Your task to perform on an android device: open app "Gmail" (install if not already installed) and enter user name: "undecidable@inbox.com" and password: "discouraging" Image 0: 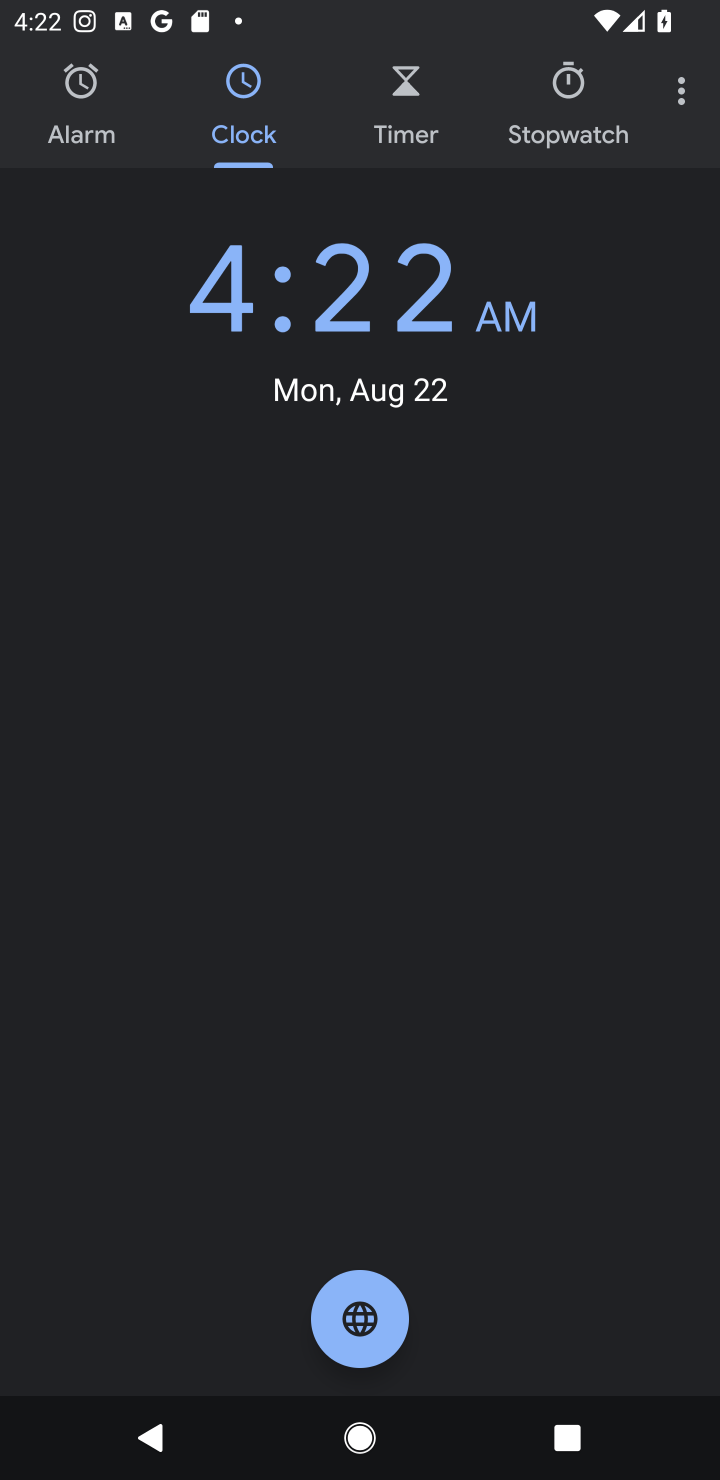
Step 0: press home button
Your task to perform on an android device: open app "Gmail" (install if not already installed) and enter user name: "undecidable@inbox.com" and password: "discouraging" Image 1: 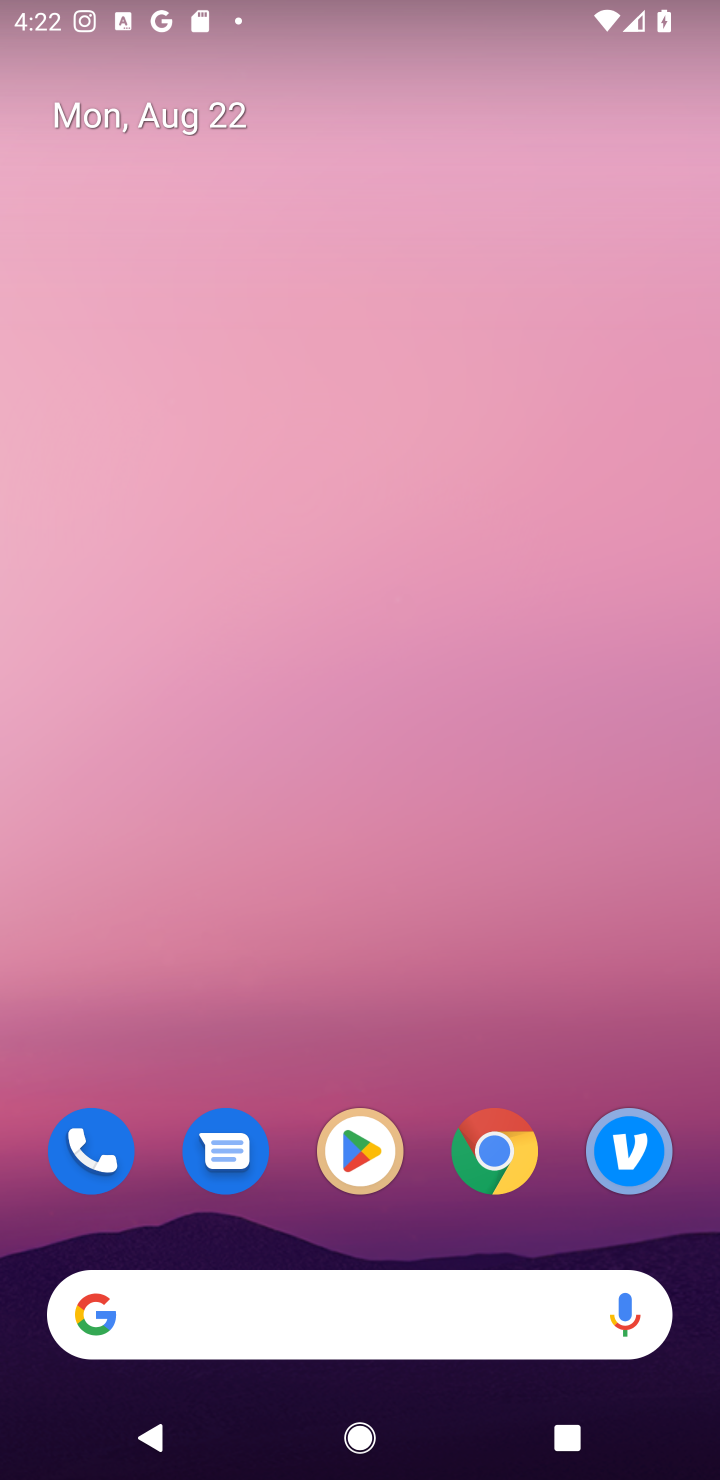
Step 1: click (340, 1155)
Your task to perform on an android device: open app "Gmail" (install if not already installed) and enter user name: "undecidable@inbox.com" and password: "discouraging" Image 2: 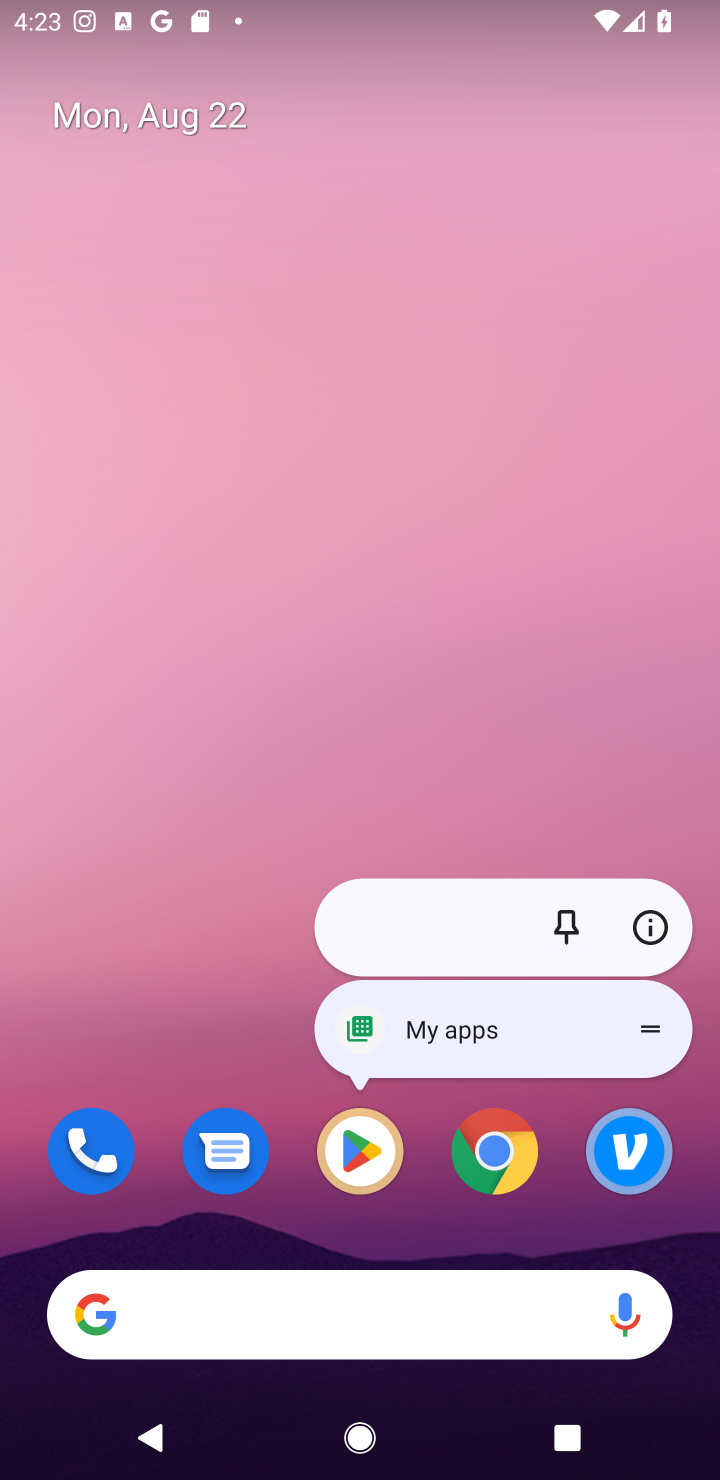
Step 2: click (340, 1157)
Your task to perform on an android device: open app "Gmail" (install if not already installed) and enter user name: "undecidable@inbox.com" and password: "discouraging" Image 3: 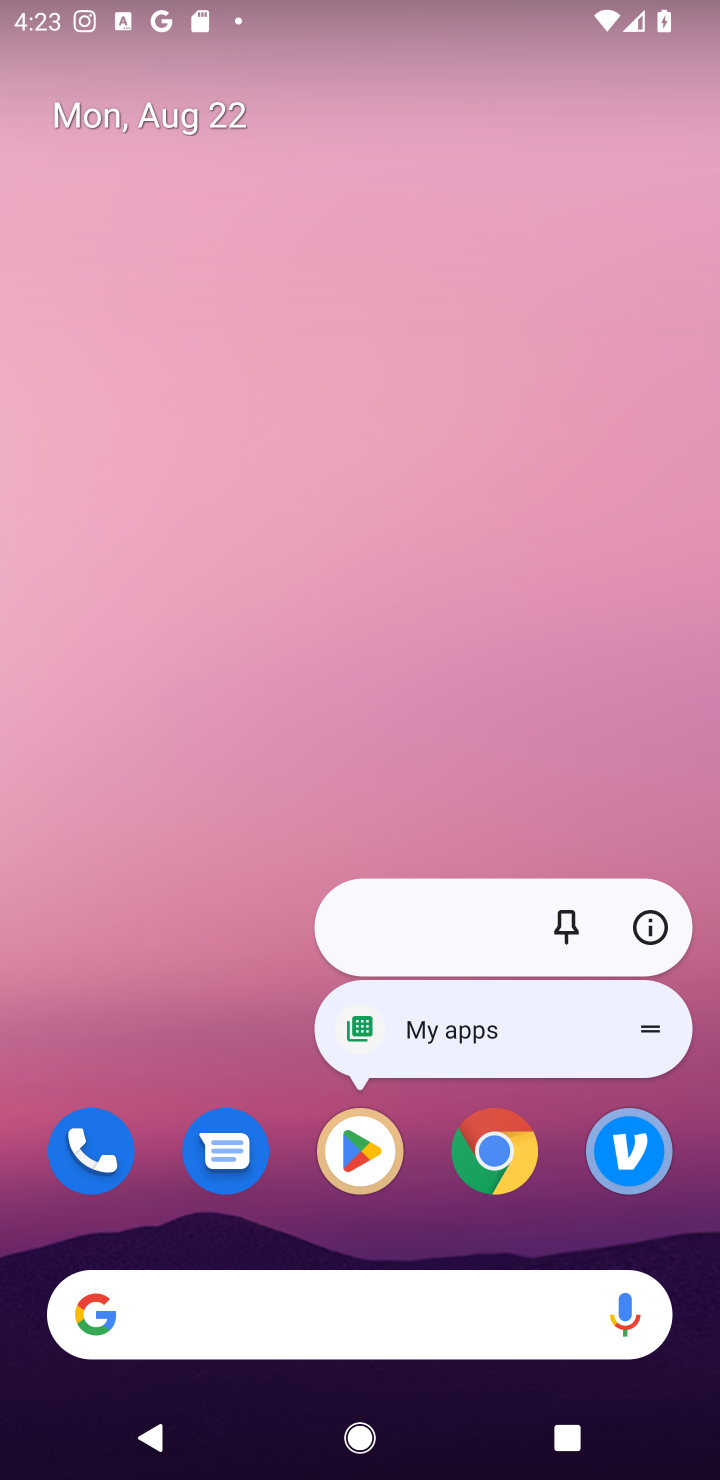
Step 3: click (363, 1141)
Your task to perform on an android device: open app "Gmail" (install if not already installed) and enter user name: "undecidable@inbox.com" and password: "discouraging" Image 4: 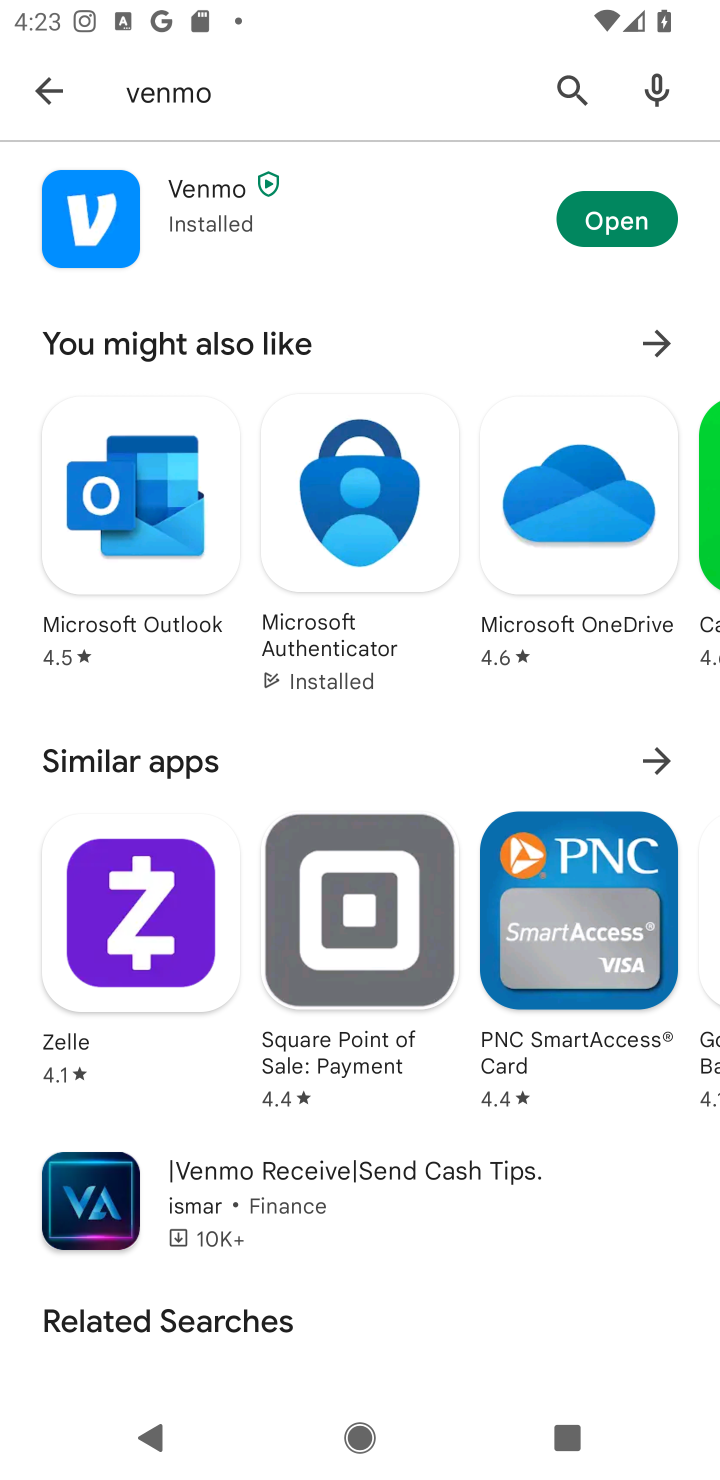
Step 4: click (564, 82)
Your task to perform on an android device: open app "Gmail" (install if not already installed) and enter user name: "undecidable@inbox.com" and password: "discouraging" Image 5: 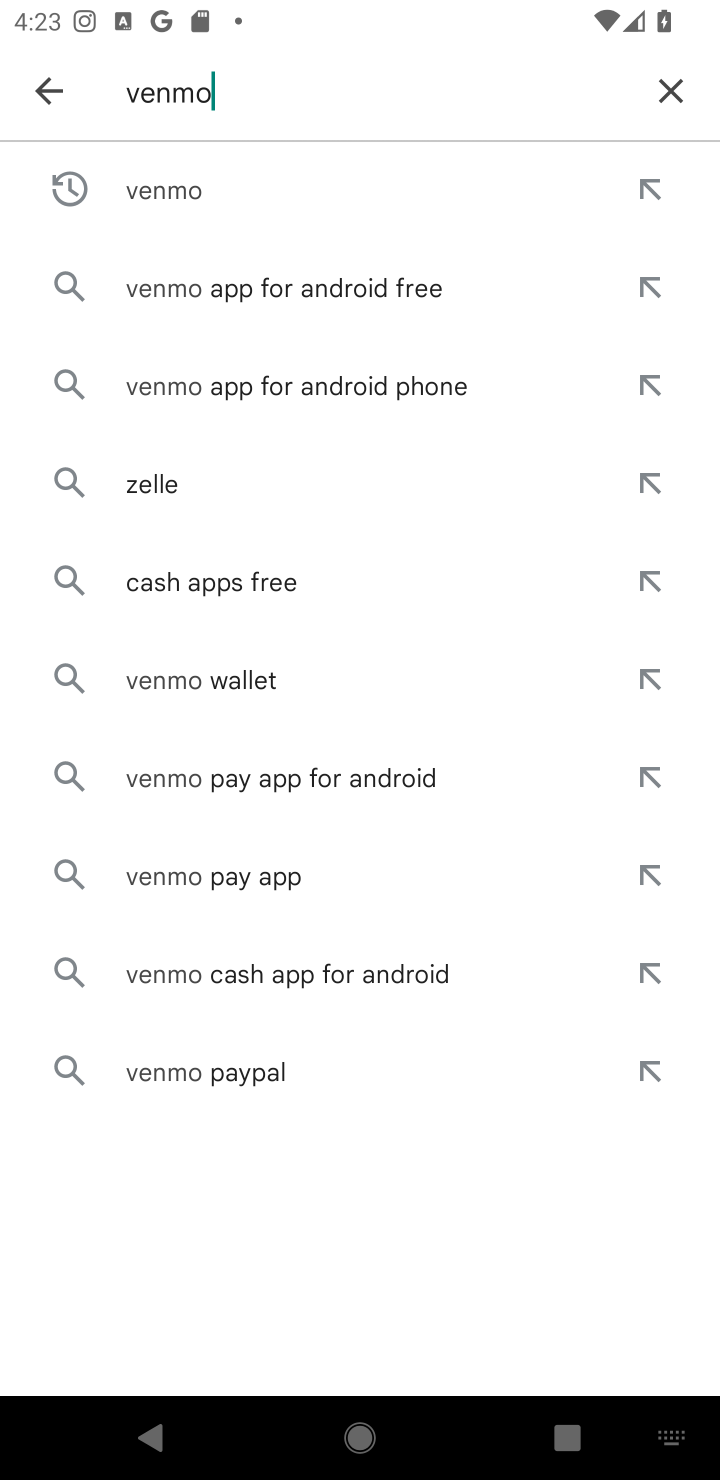
Step 5: click (678, 78)
Your task to perform on an android device: open app "Gmail" (install if not already installed) and enter user name: "undecidable@inbox.com" and password: "discouraging" Image 6: 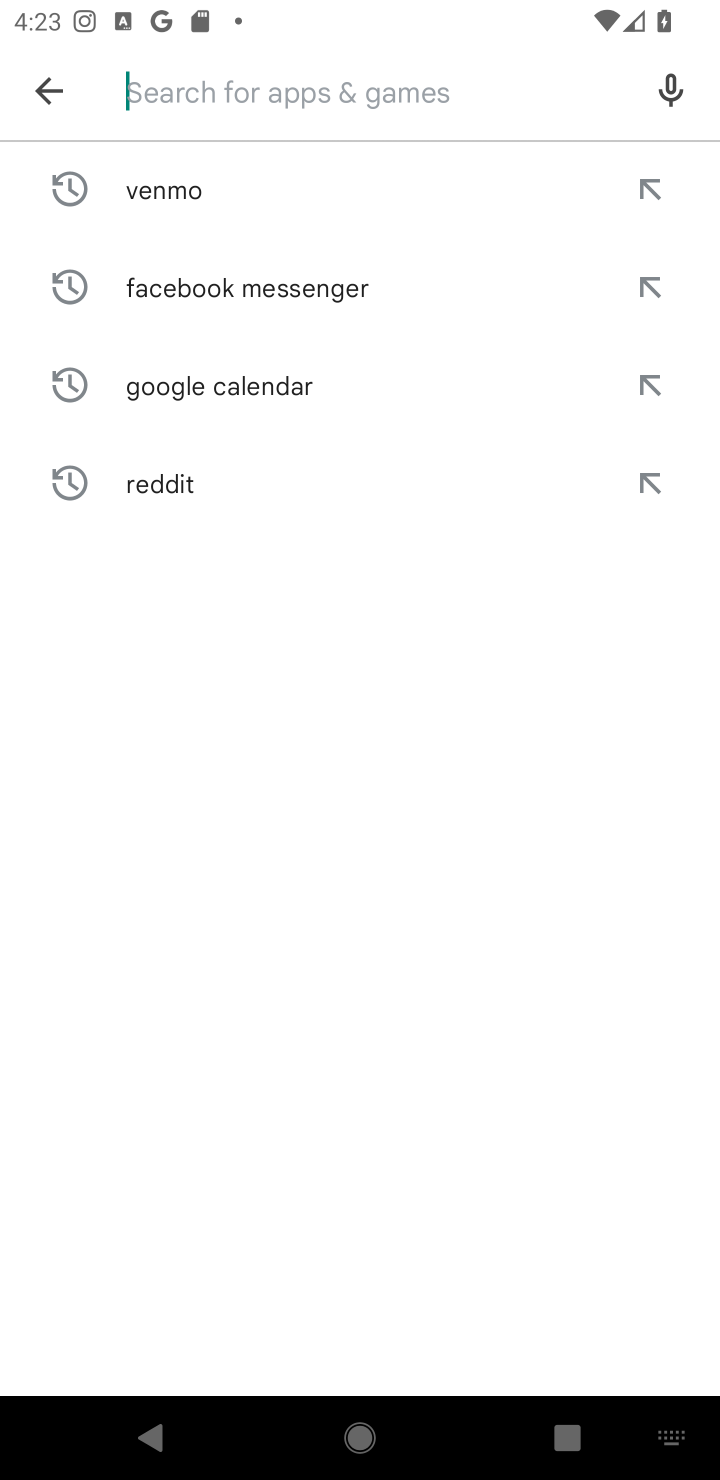
Step 6: type "Gmail"
Your task to perform on an android device: open app "Gmail" (install if not already installed) and enter user name: "undecidable@inbox.com" and password: "discouraging" Image 7: 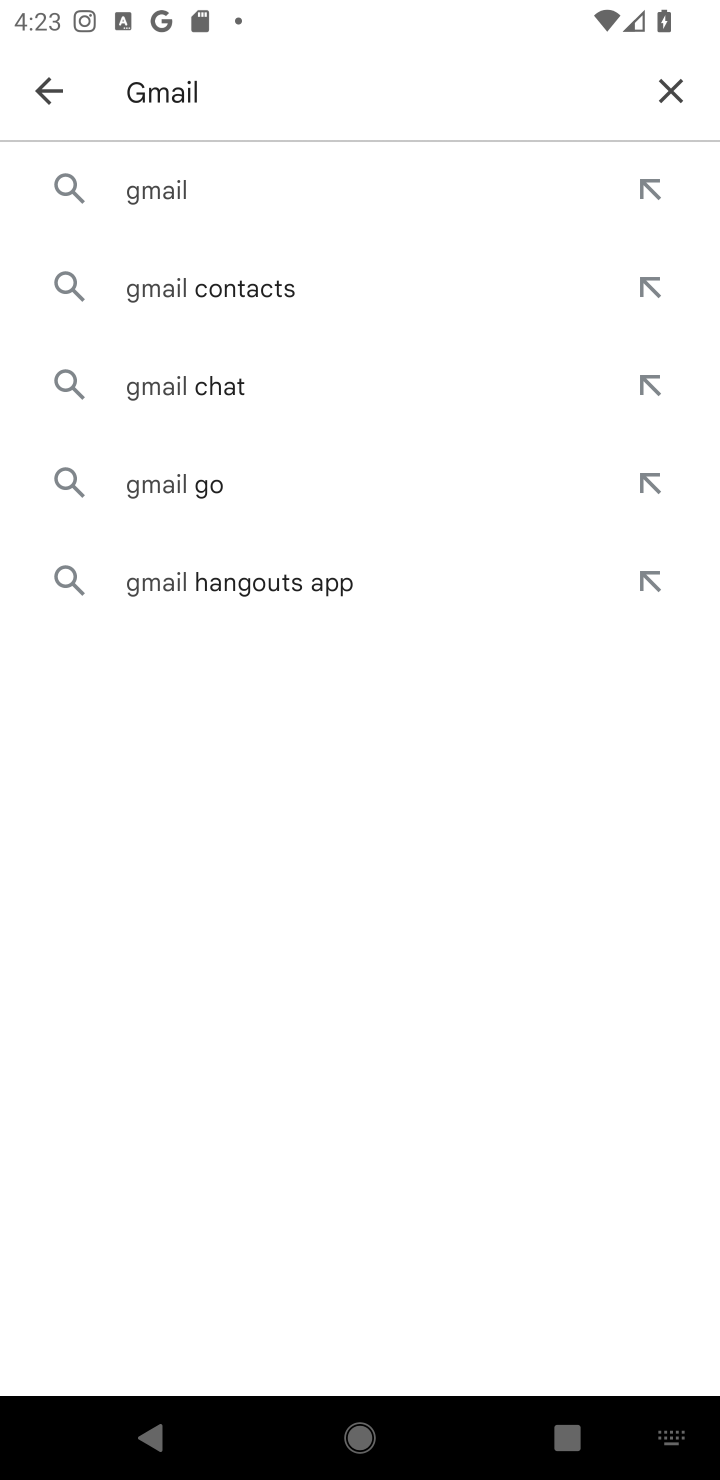
Step 7: click (286, 175)
Your task to perform on an android device: open app "Gmail" (install if not already installed) and enter user name: "undecidable@inbox.com" and password: "discouraging" Image 8: 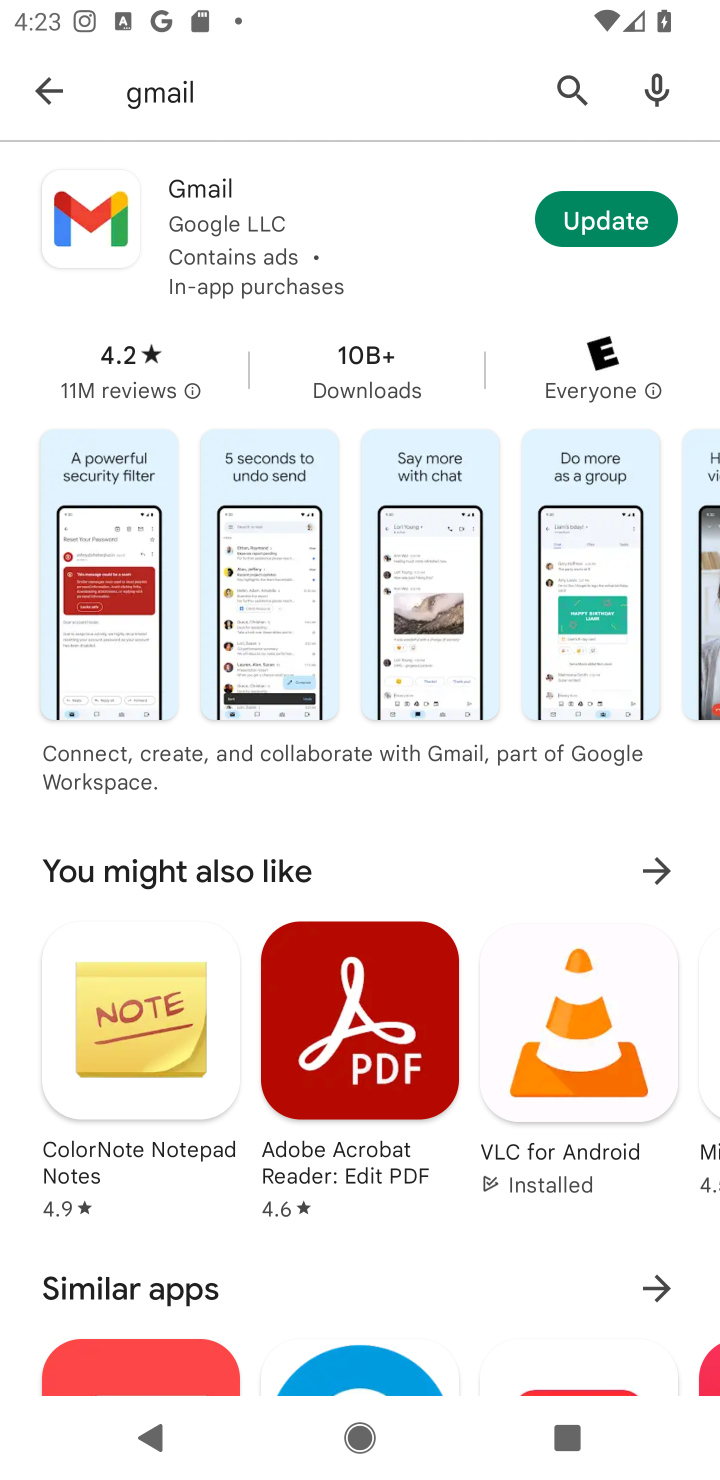
Step 8: click (246, 245)
Your task to perform on an android device: open app "Gmail" (install if not already installed) and enter user name: "undecidable@inbox.com" and password: "discouraging" Image 9: 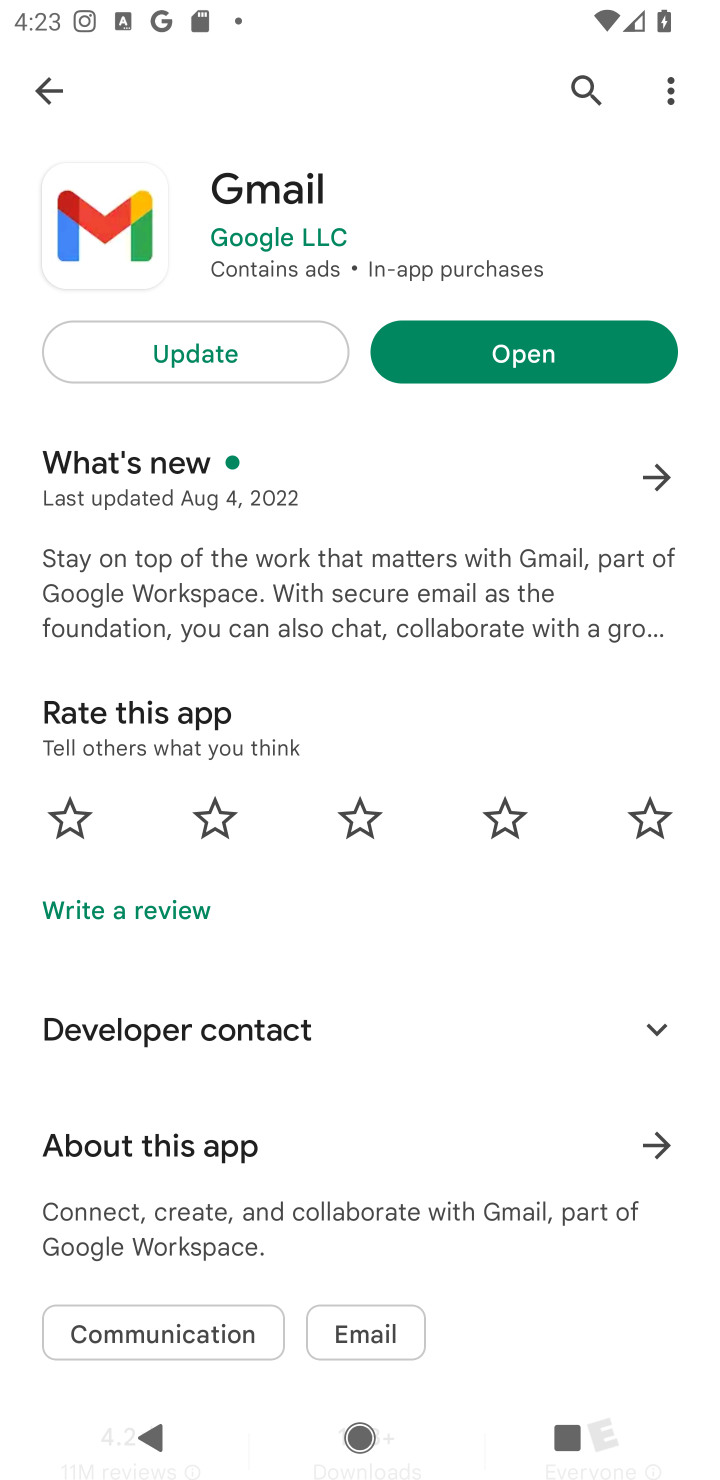
Step 9: click (588, 350)
Your task to perform on an android device: open app "Gmail" (install if not already installed) and enter user name: "undecidable@inbox.com" and password: "discouraging" Image 10: 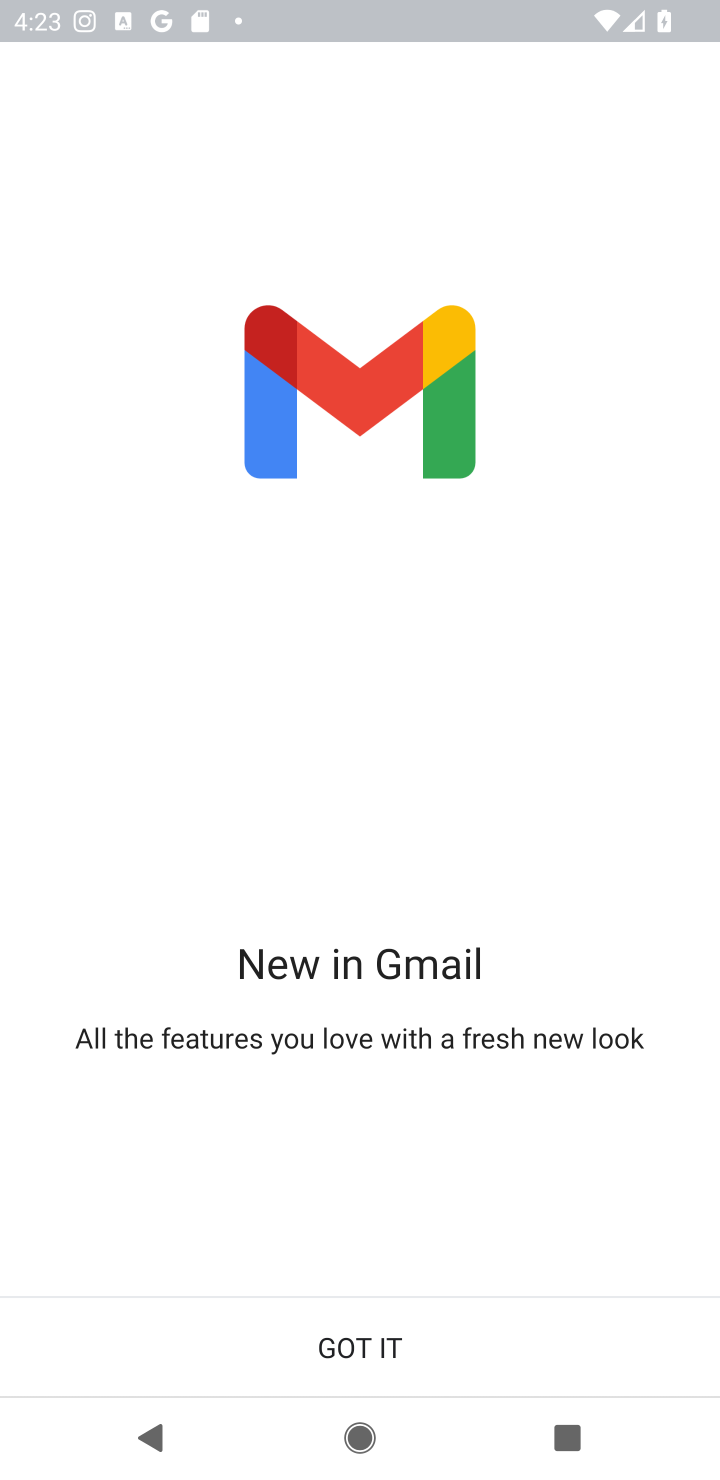
Step 10: click (473, 1366)
Your task to perform on an android device: open app "Gmail" (install if not already installed) and enter user name: "undecidable@inbox.com" and password: "discouraging" Image 11: 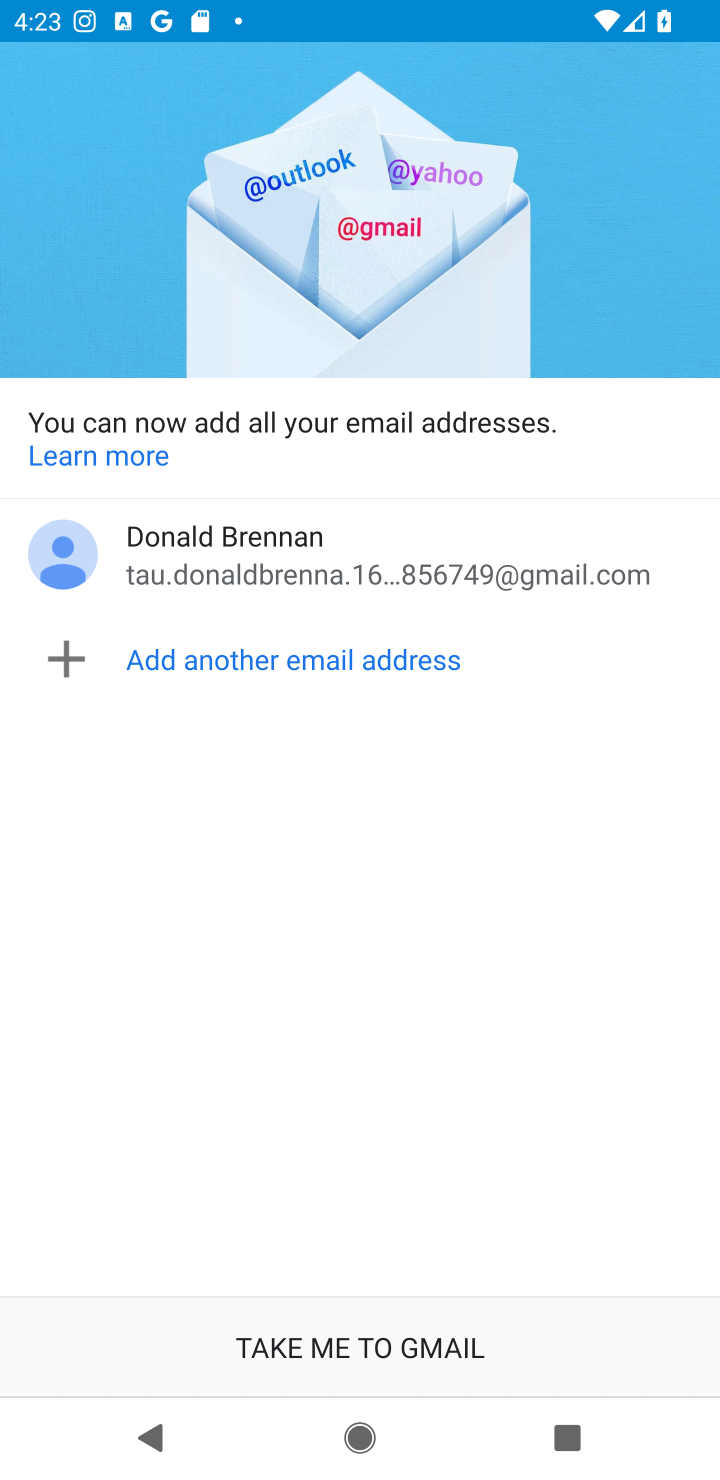
Step 11: task complete